Your task to perform on an android device: stop showing notifications on the lock screen Image 0: 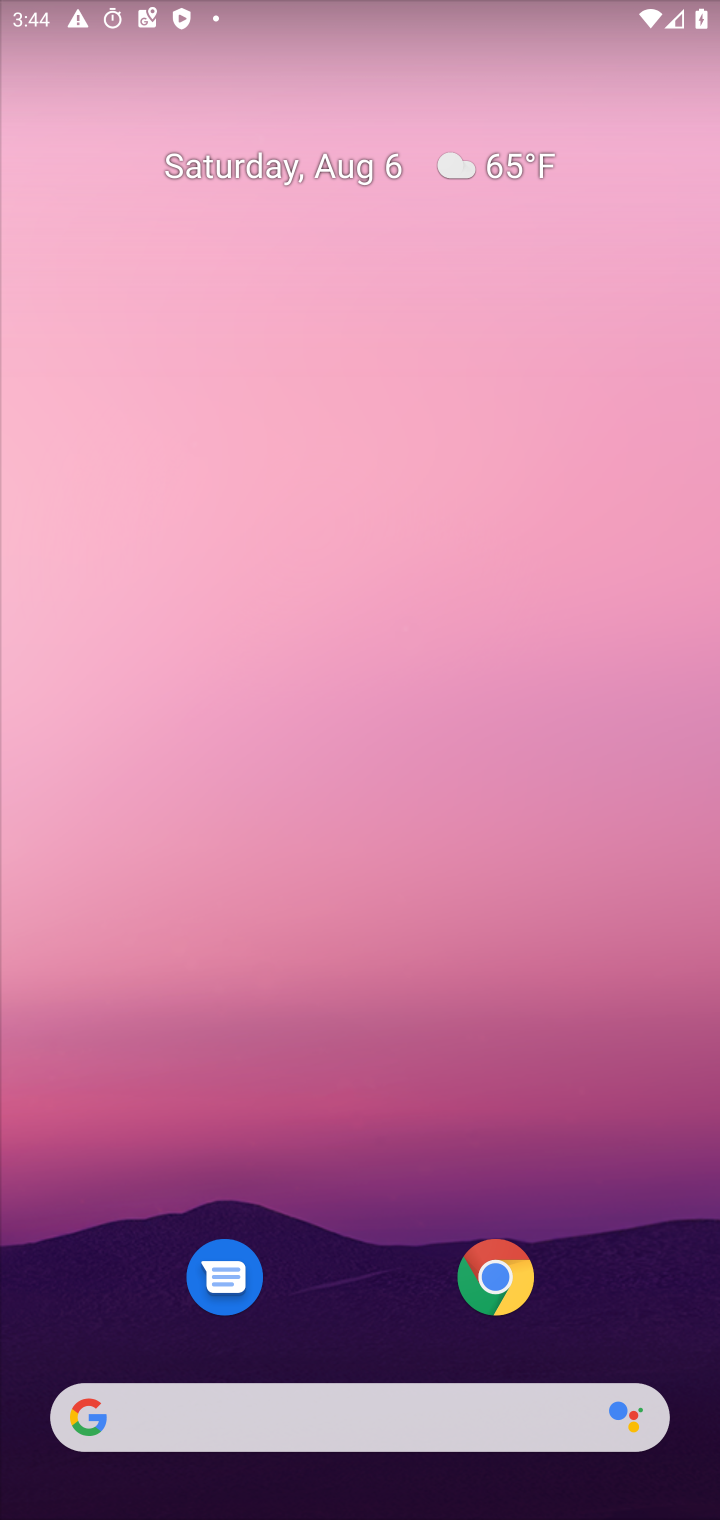
Step 0: drag from (383, 1415) to (420, 252)
Your task to perform on an android device: stop showing notifications on the lock screen Image 1: 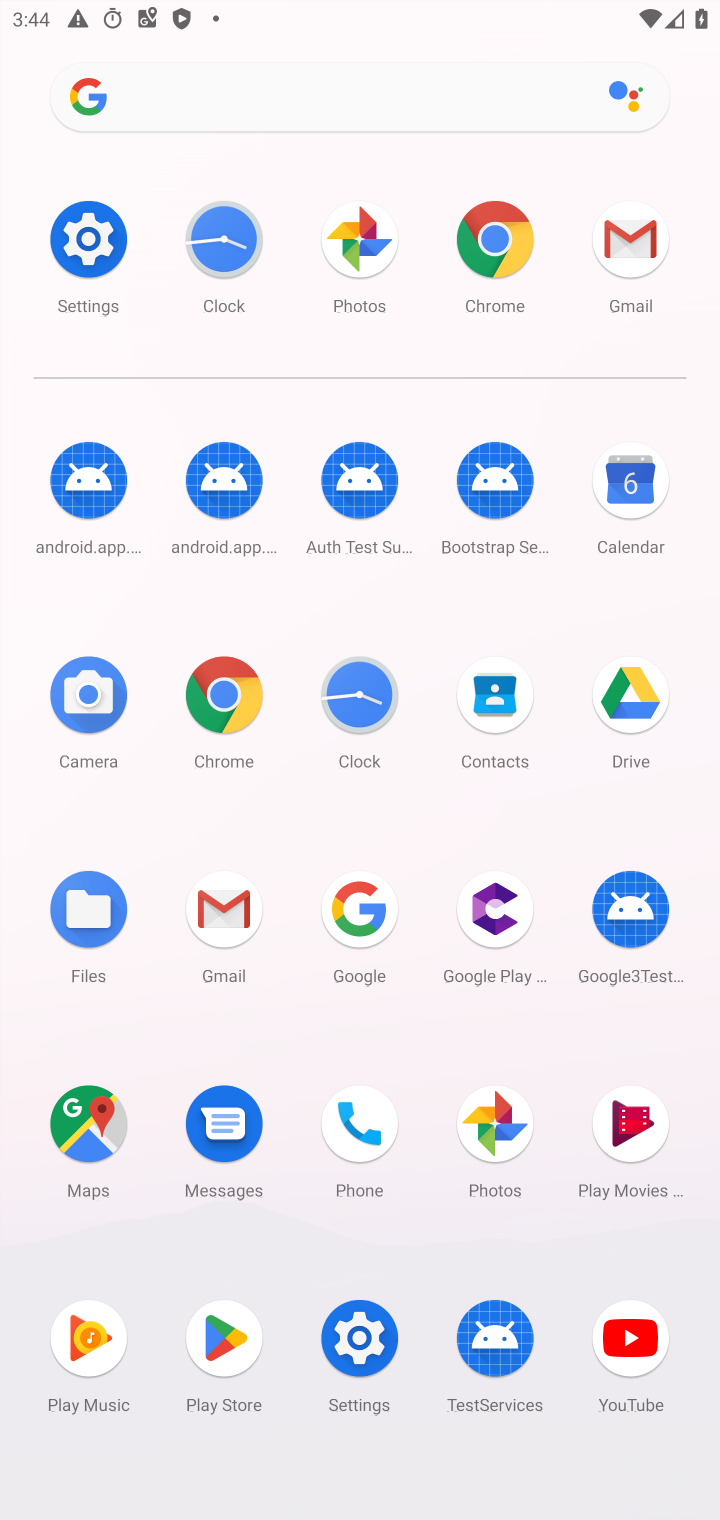
Step 1: click (80, 243)
Your task to perform on an android device: stop showing notifications on the lock screen Image 2: 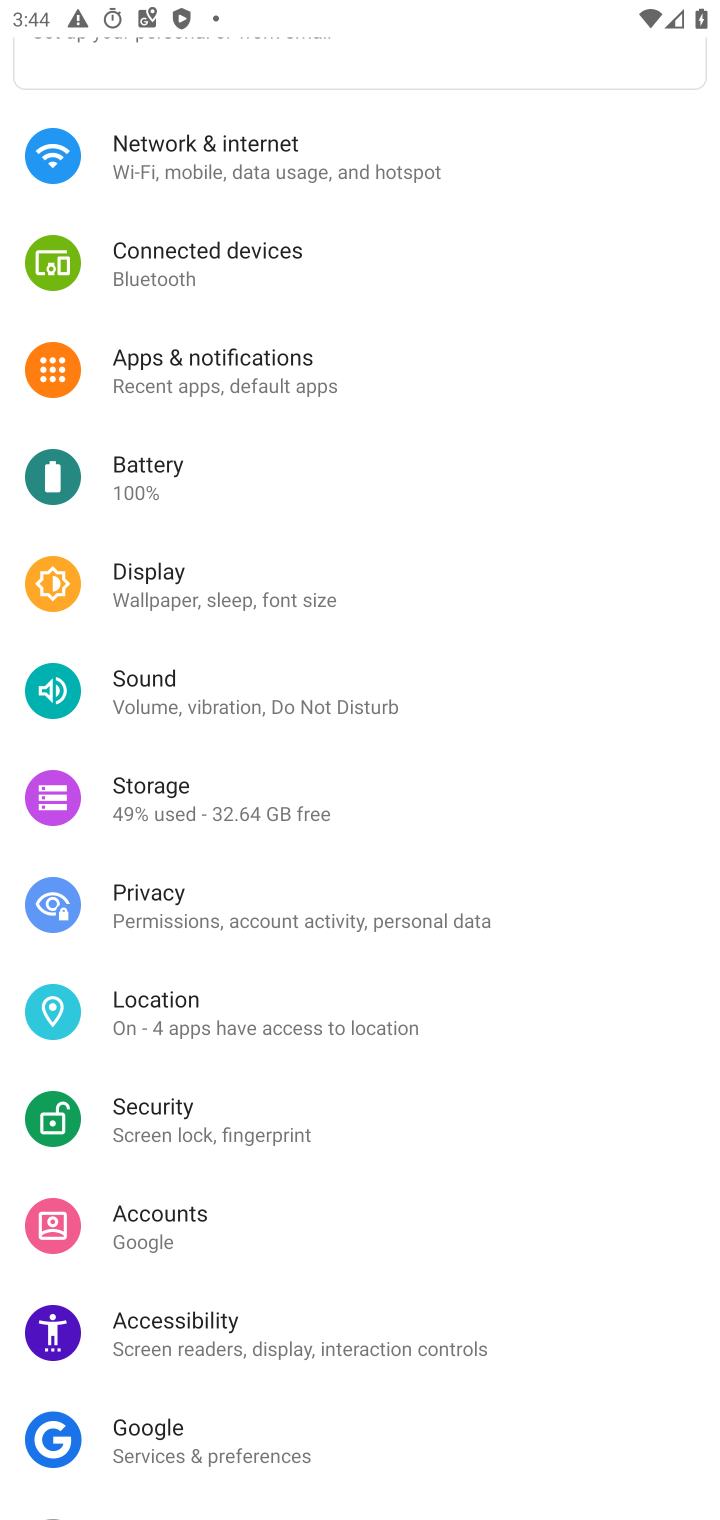
Step 2: click (236, 375)
Your task to perform on an android device: stop showing notifications on the lock screen Image 3: 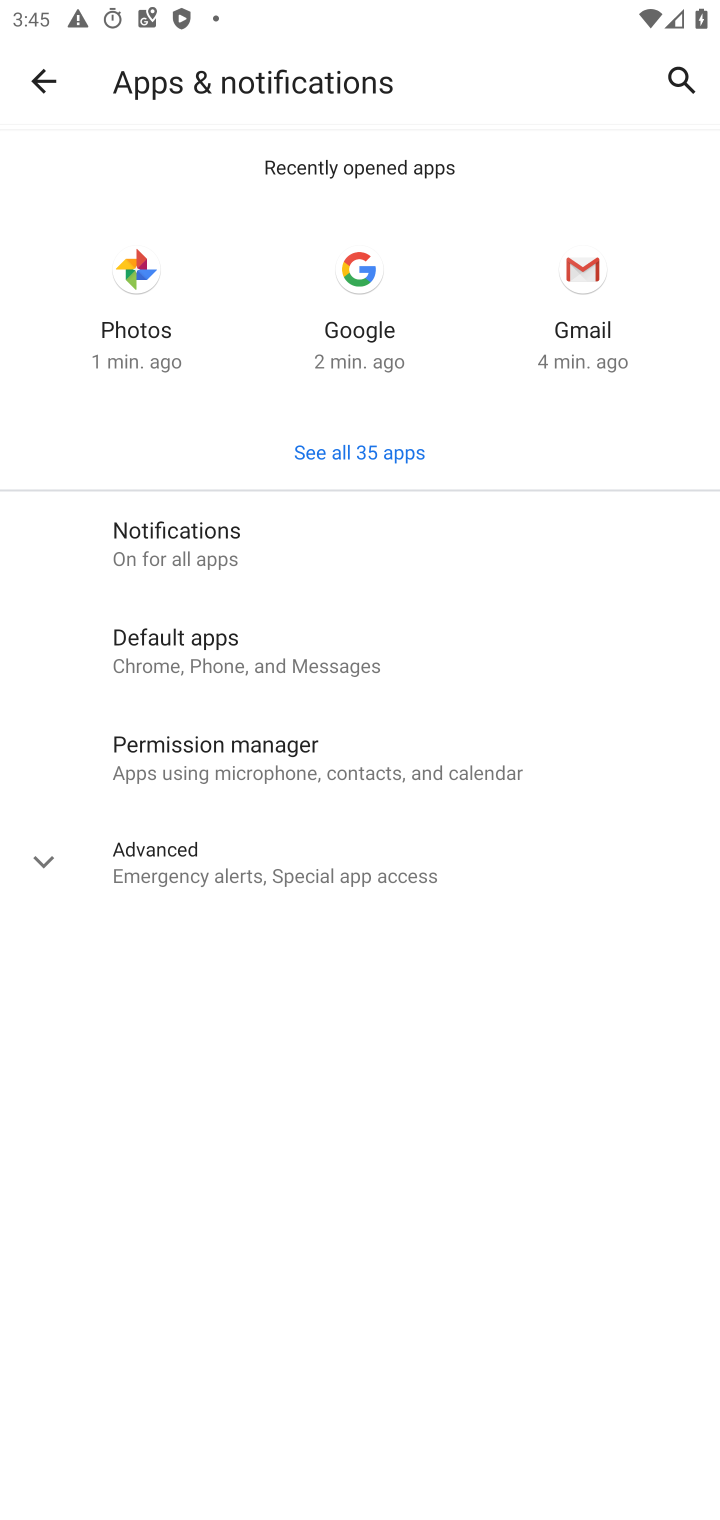
Step 3: click (163, 539)
Your task to perform on an android device: stop showing notifications on the lock screen Image 4: 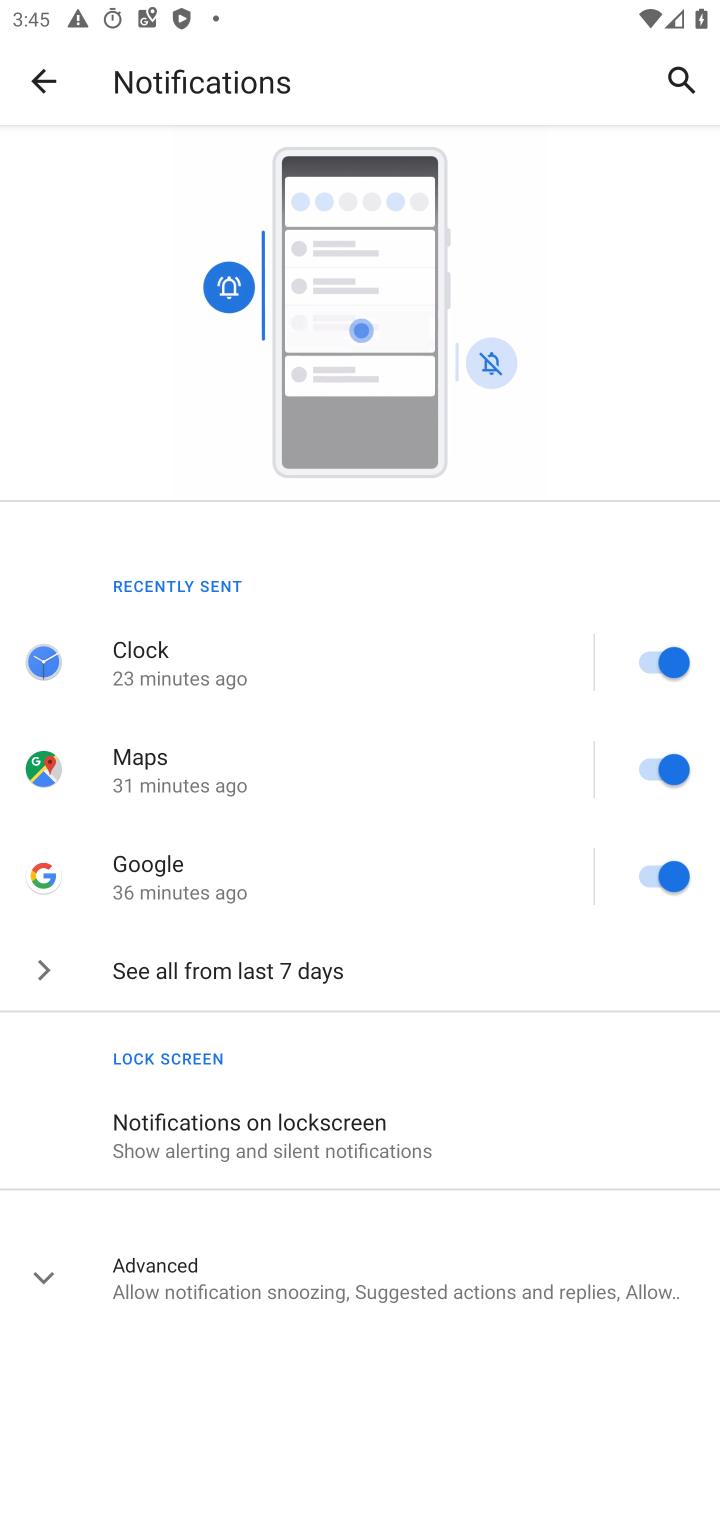
Step 4: click (204, 1269)
Your task to perform on an android device: stop showing notifications on the lock screen Image 5: 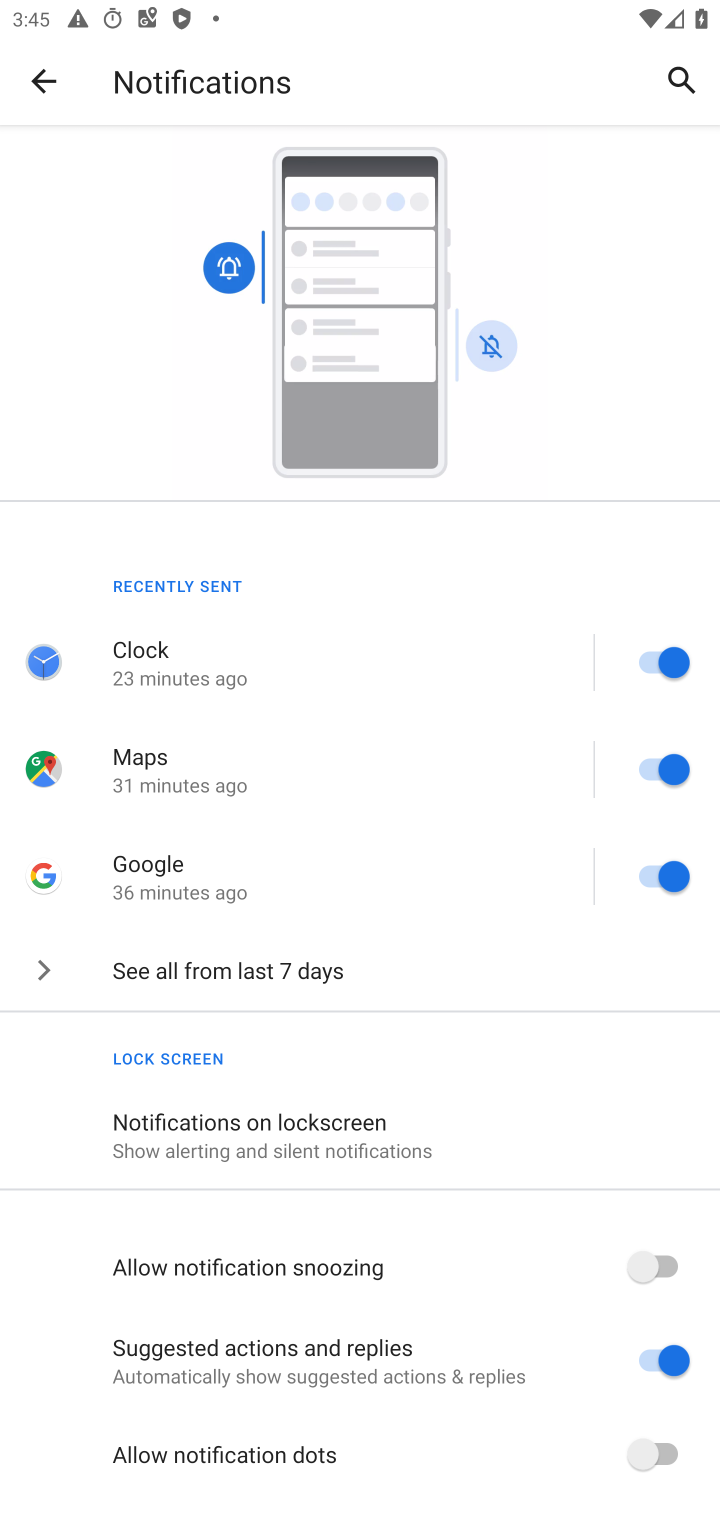
Step 5: click (384, 1140)
Your task to perform on an android device: stop showing notifications on the lock screen Image 6: 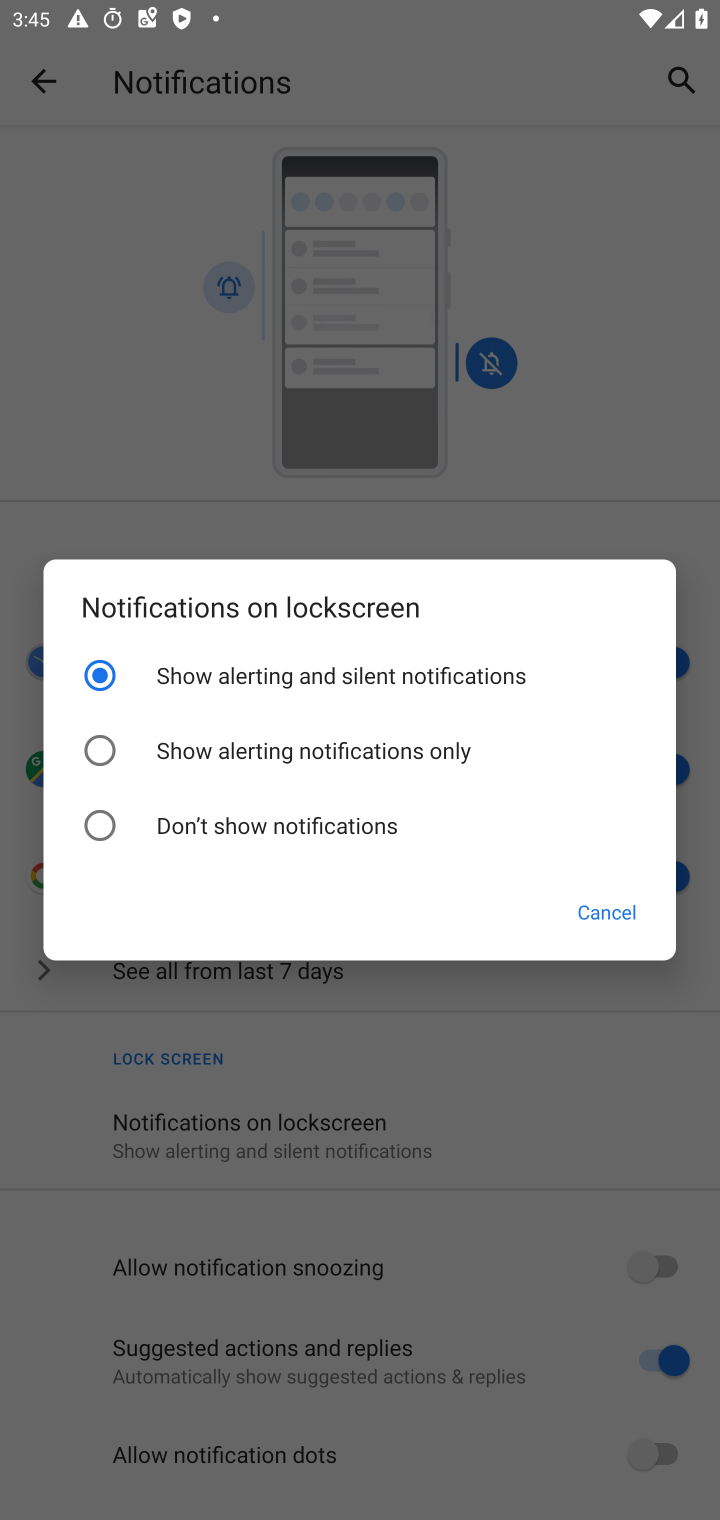
Step 6: click (112, 815)
Your task to perform on an android device: stop showing notifications on the lock screen Image 7: 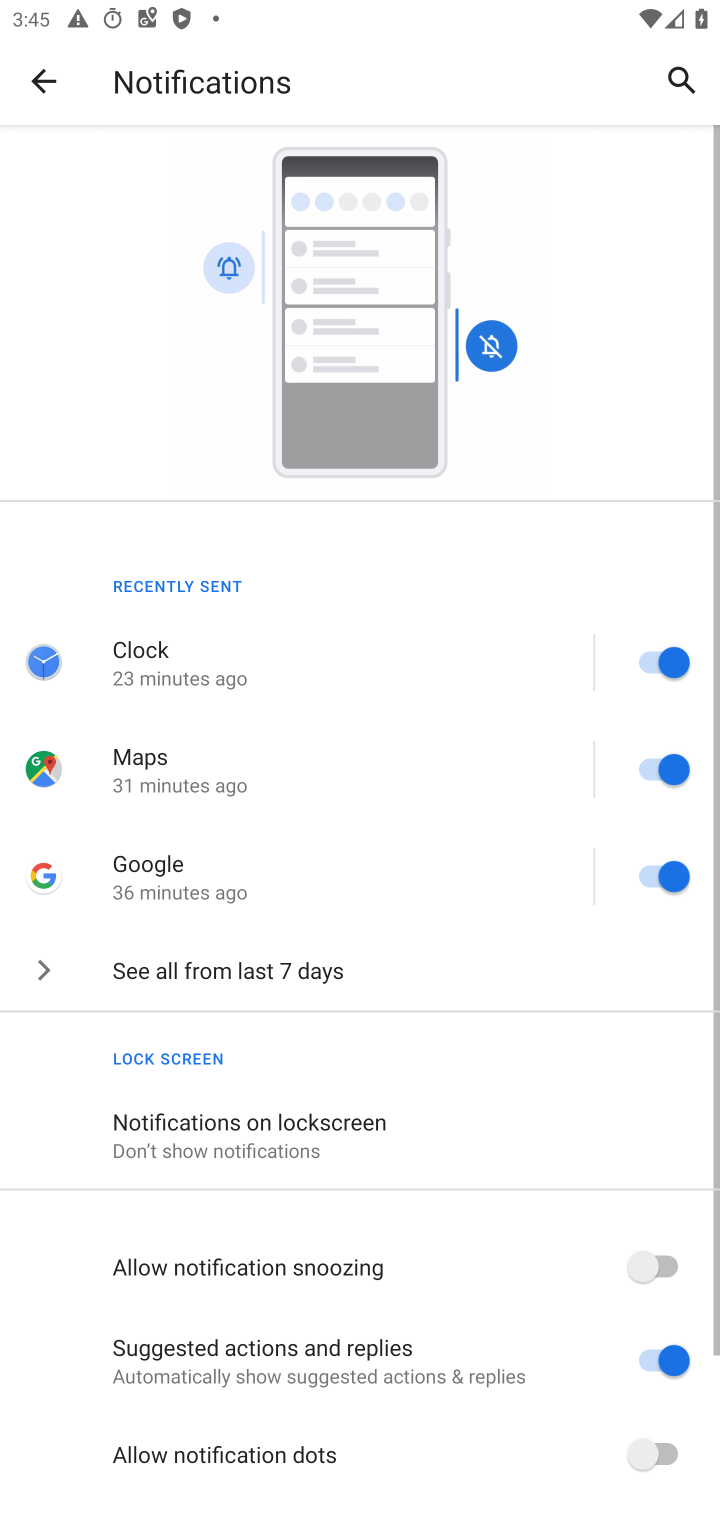
Step 7: task complete